Your task to perform on an android device: Open Chrome and go to the settings page Image 0: 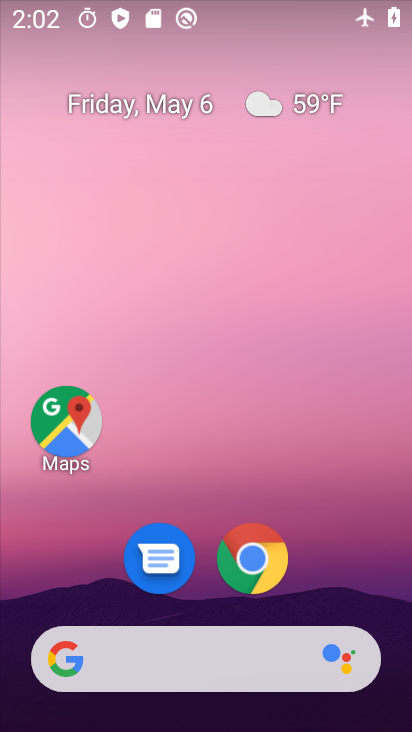
Step 0: click (253, 580)
Your task to perform on an android device: Open Chrome and go to the settings page Image 1: 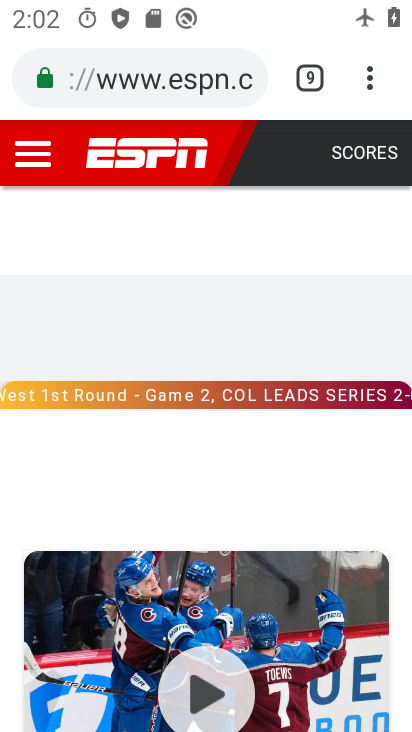
Step 1: task complete